Your task to perform on an android device: change keyboard looks Image 0: 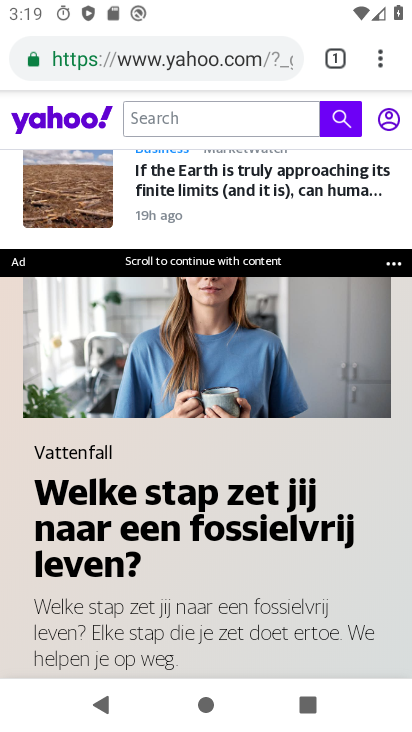
Step 0: press home button
Your task to perform on an android device: change keyboard looks Image 1: 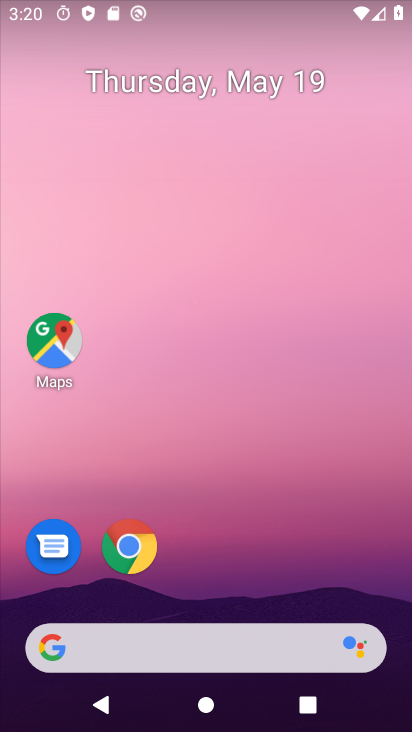
Step 1: drag from (227, 609) to (267, 84)
Your task to perform on an android device: change keyboard looks Image 2: 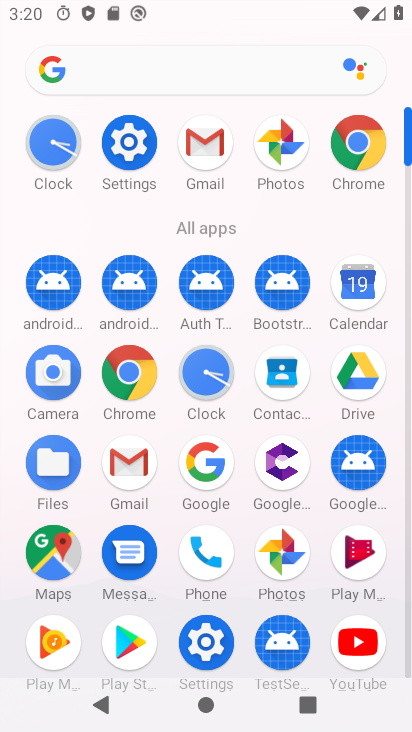
Step 2: click (205, 631)
Your task to perform on an android device: change keyboard looks Image 3: 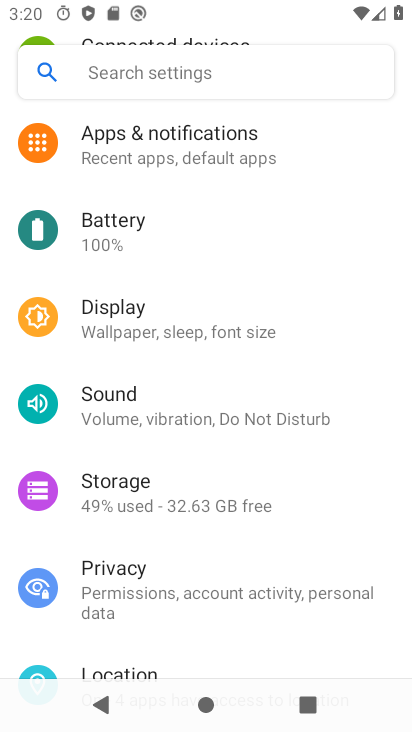
Step 3: drag from (196, 643) to (198, 104)
Your task to perform on an android device: change keyboard looks Image 4: 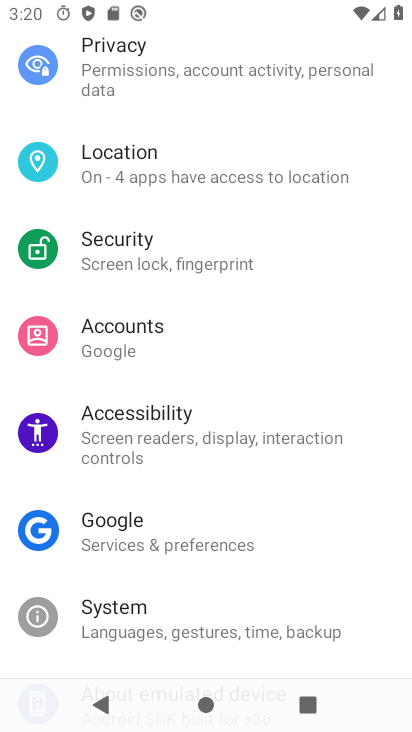
Step 4: click (171, 605)
Your task to perform on an android device: change keyboard looks Image 5: 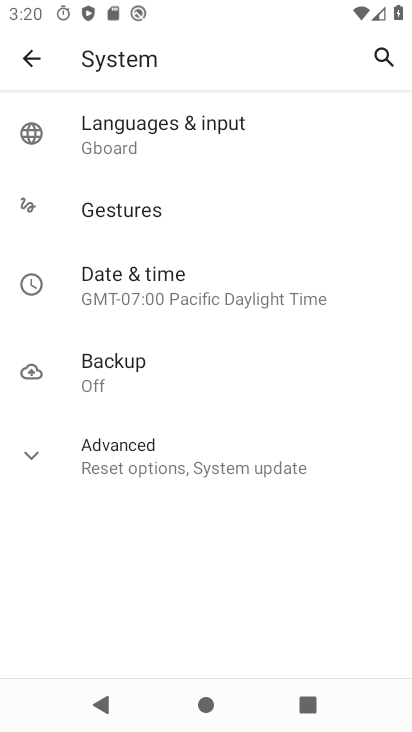
Step 5: click (58, 118)
Your task to perform on an android device: change keyboard looks Image 6: 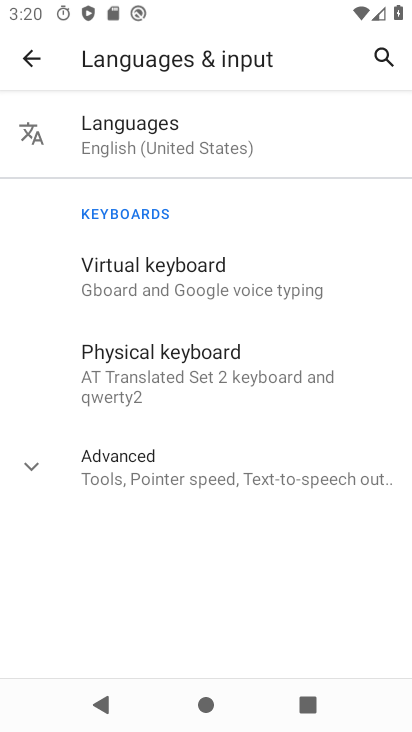
Step 6: click (67, 271)
Your task to perform on an android device: change keyboard looks Image 7: 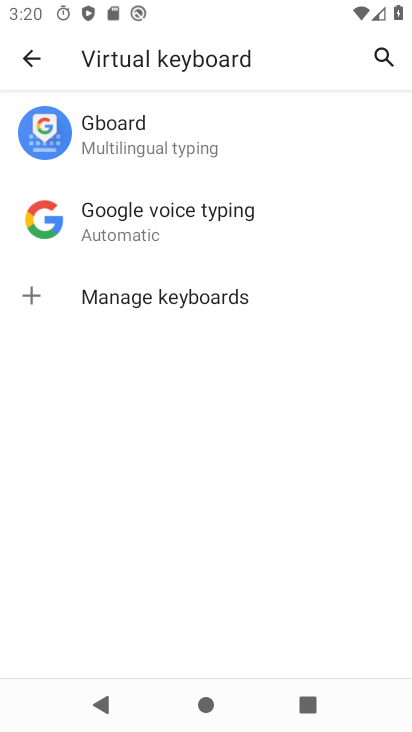
Step 7: click (151, 124)
Your task to perform on an android device: change keyboard looks Image 8: 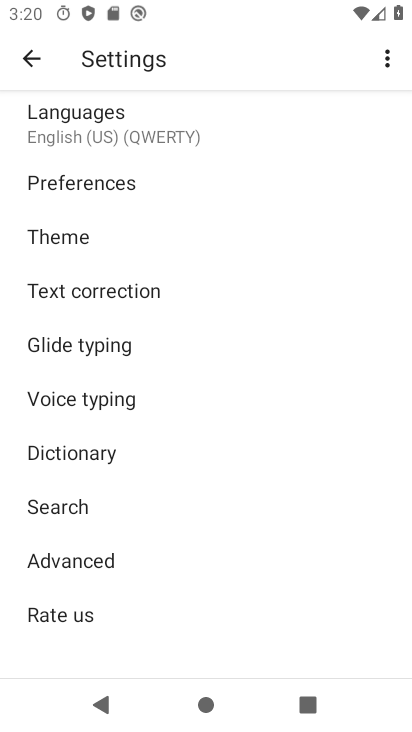
Step 8: click (93, 238)
Your task to perform on an android device: change keyboard looks Image 9: 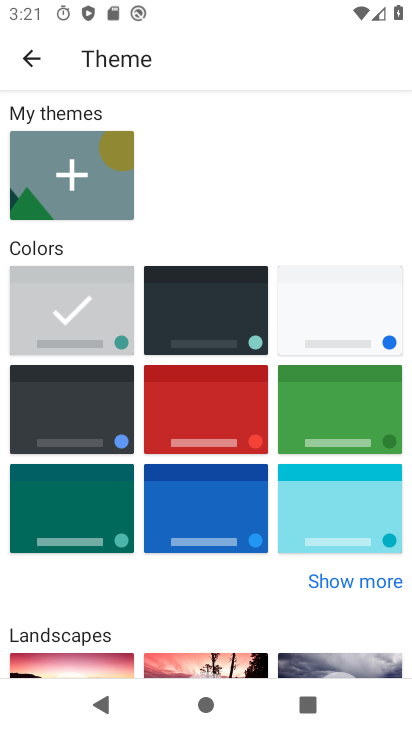
Step 9: click (305, 408)
Your task to perform on an android device: change keyboard looks Image 10: 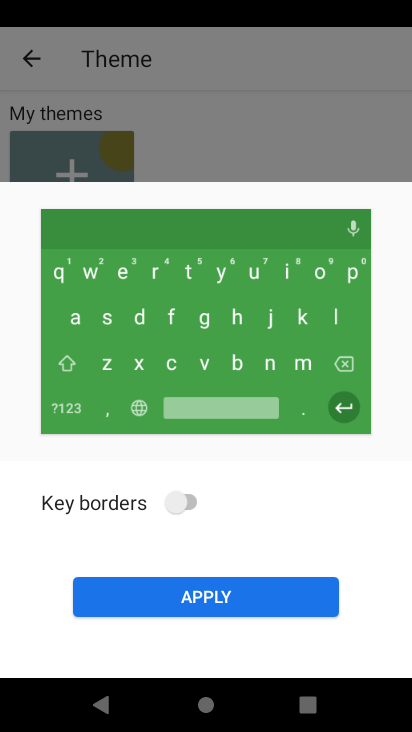
Step 10: click (208, 600)
Your task to perform on an android device: change keyboard looks Image 11: 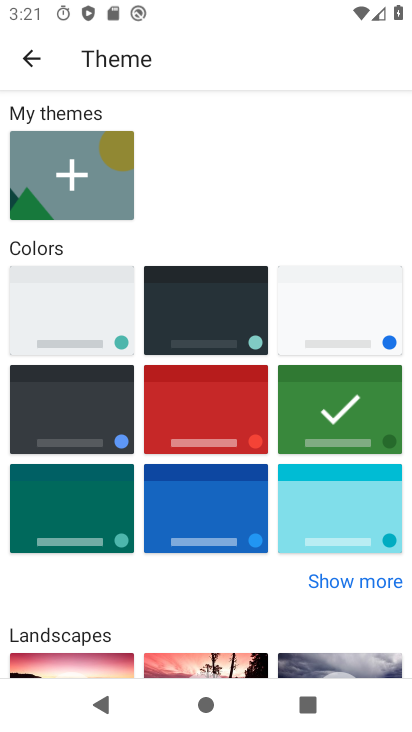
Step 11: task complete